Your task to perform on an android device: Go to display settings Image 0: 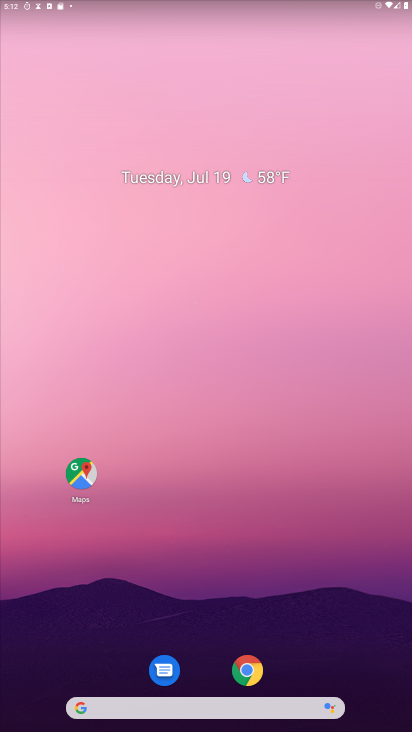
Step 0: drag from (270, 719) to (282, 48)
Your task to perform on an android device: Go to display settings Image 1: 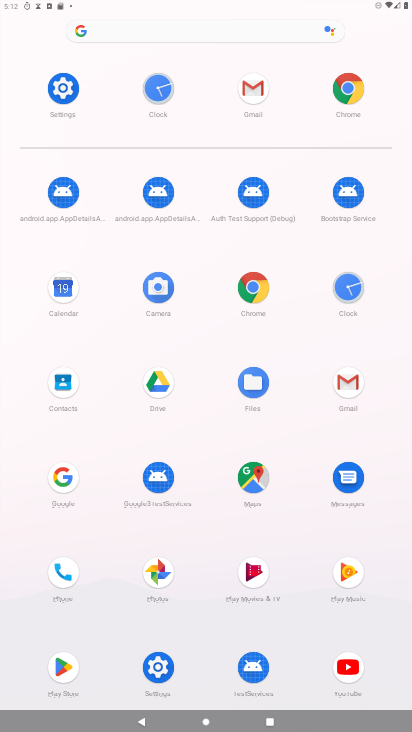
Step 1: click (68, 94)
Your task to perform on an android device: Go to display settings Image 2: 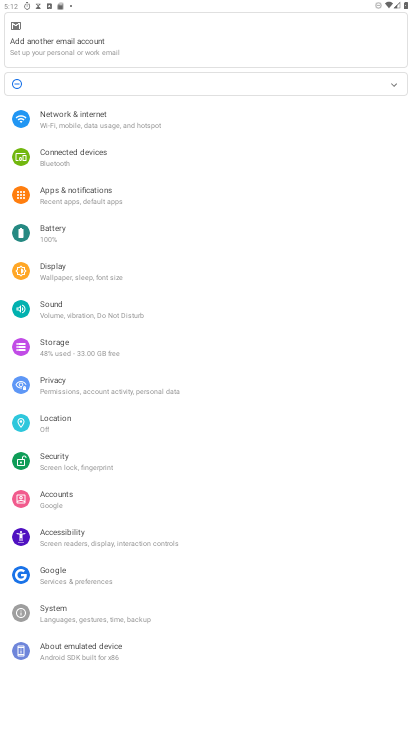
Step 2: click (75, 275)
Your task to perform on an android device: Go to display settings Image 3: 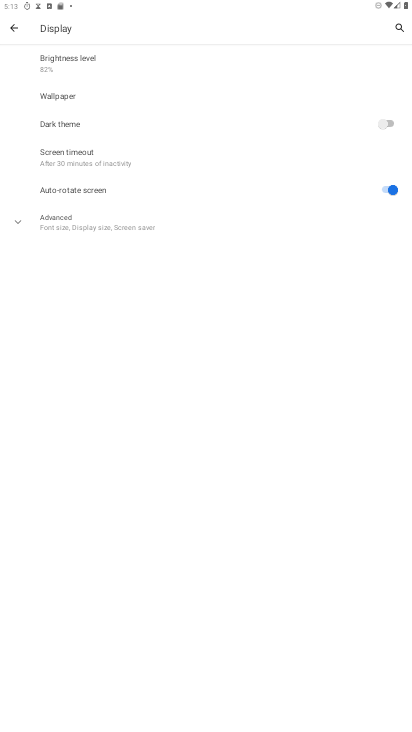
Step 3: task complete